Your task to perform on an android device: What is the recent news? Image 0: 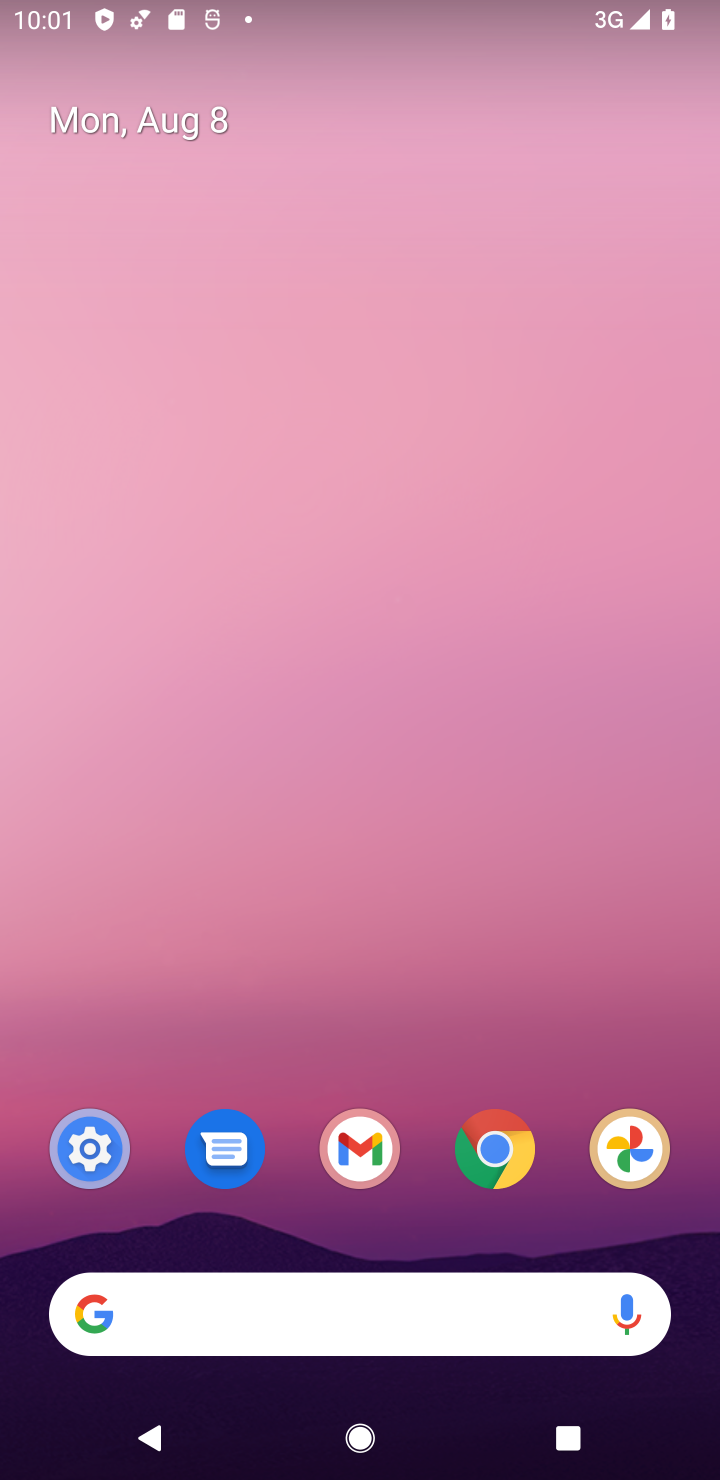
Step 0: drag from (380, 1329) to (366, 423)
Your task to perform on an android device: What is the recent news? Image 1: 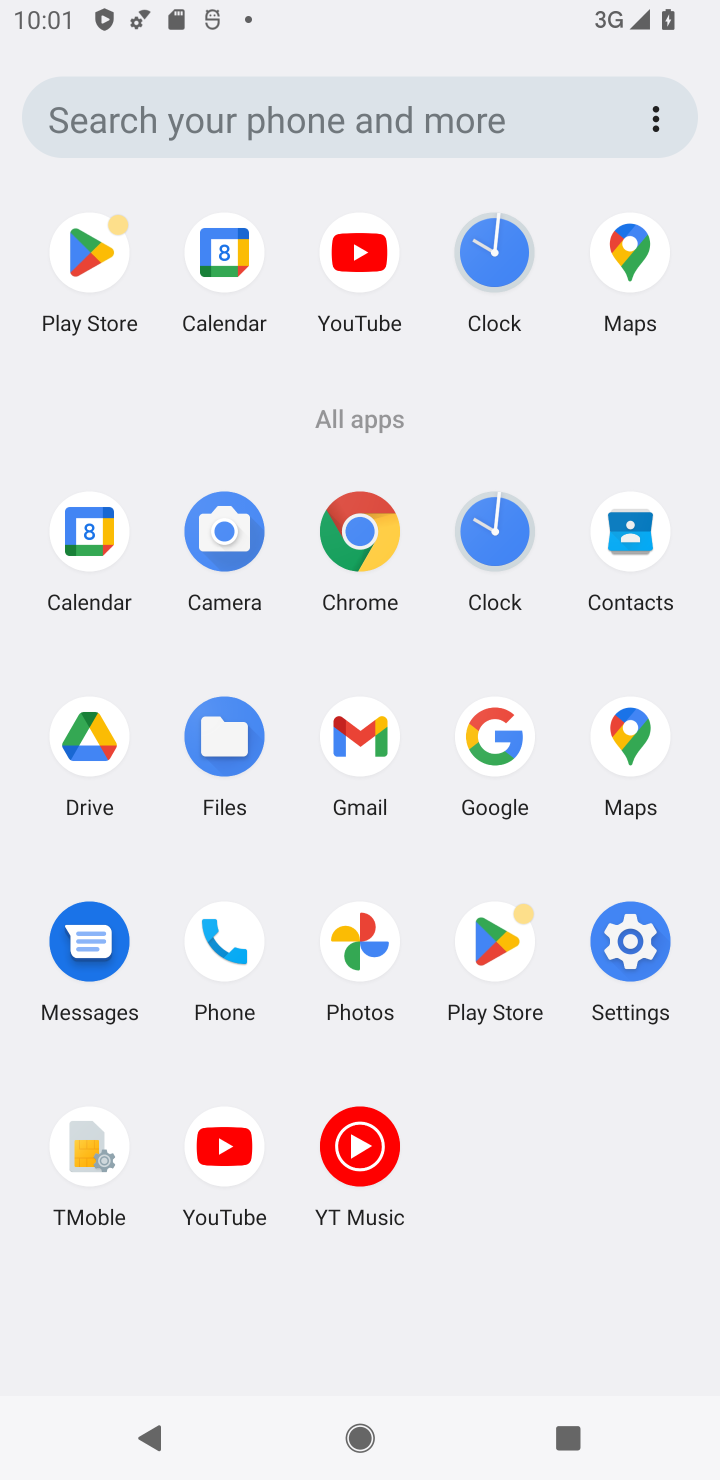
Step 1: click (487, 745)
Your task to perform on an android device: What is the recent news? Image 2: 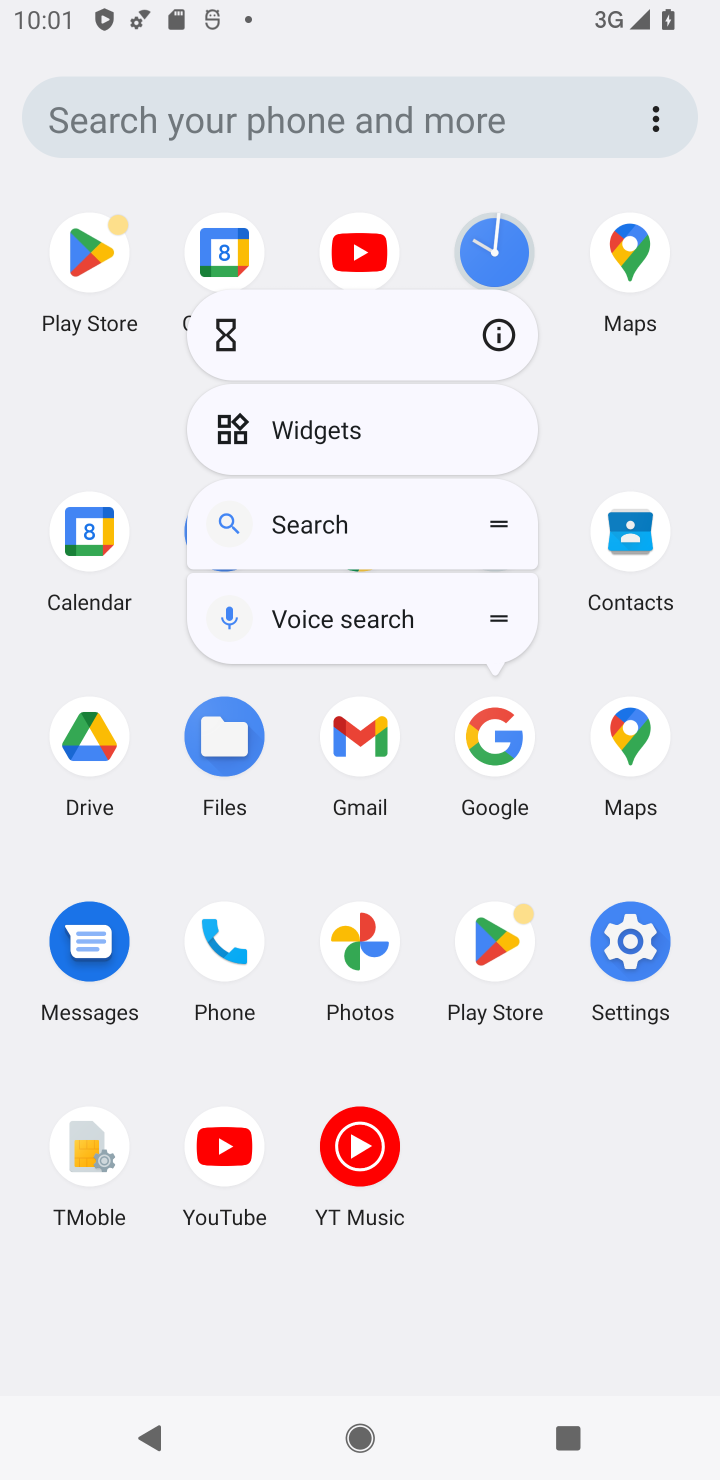
Step 2: click (498, 758)
Your task to perform on an android device: What is the recent news? Image 3: 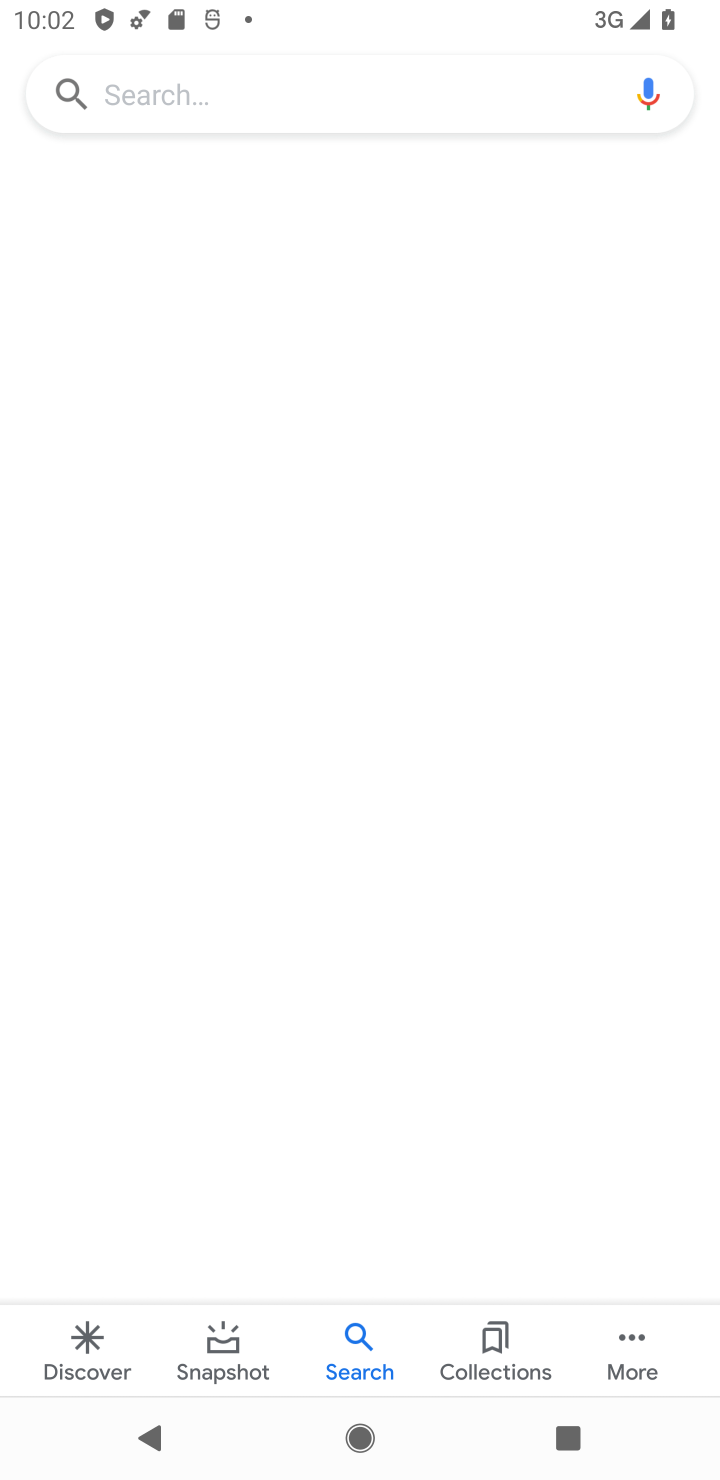
Step 3: click (194, 110)
Your task to perform on an android device: What is the recent news? Image 4: 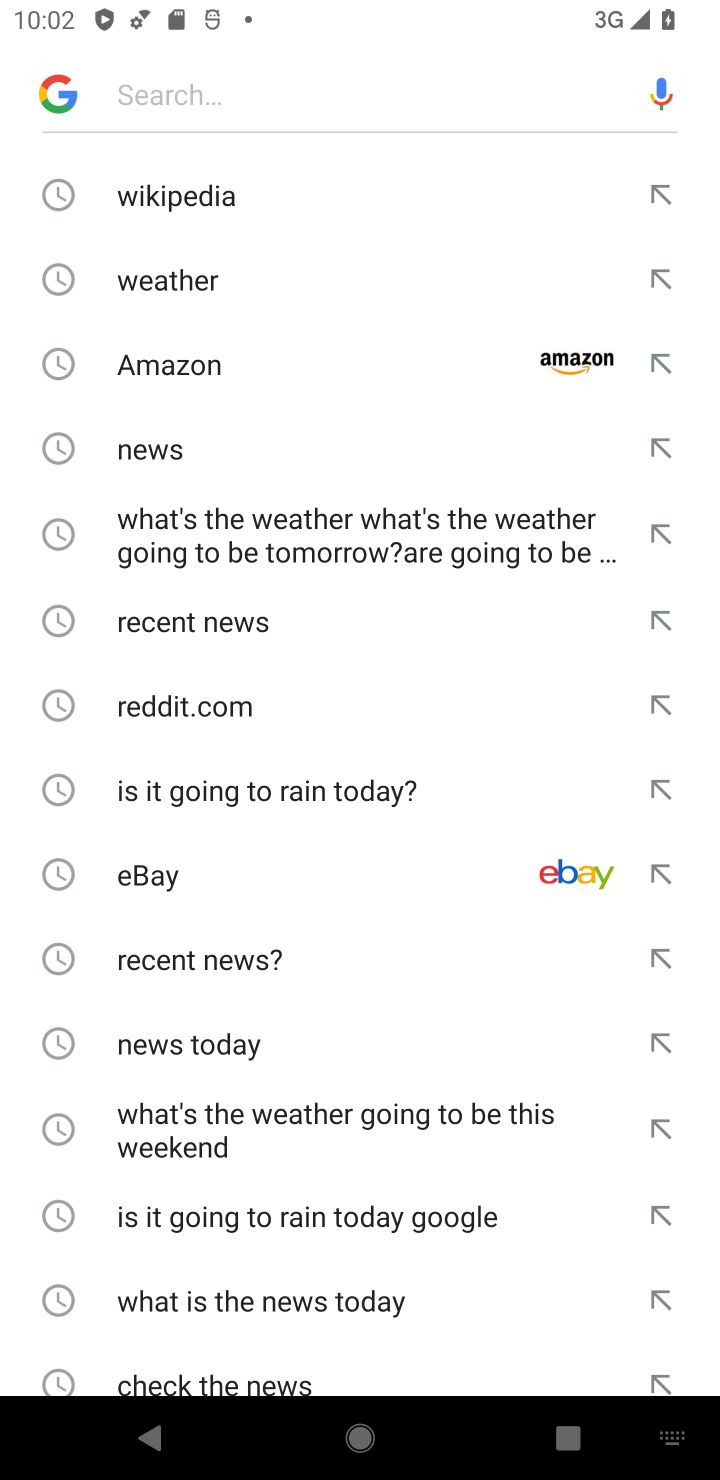
Step 4: click (190, 962)
Your task to perform on an android device: What is the recent news? Image 5: 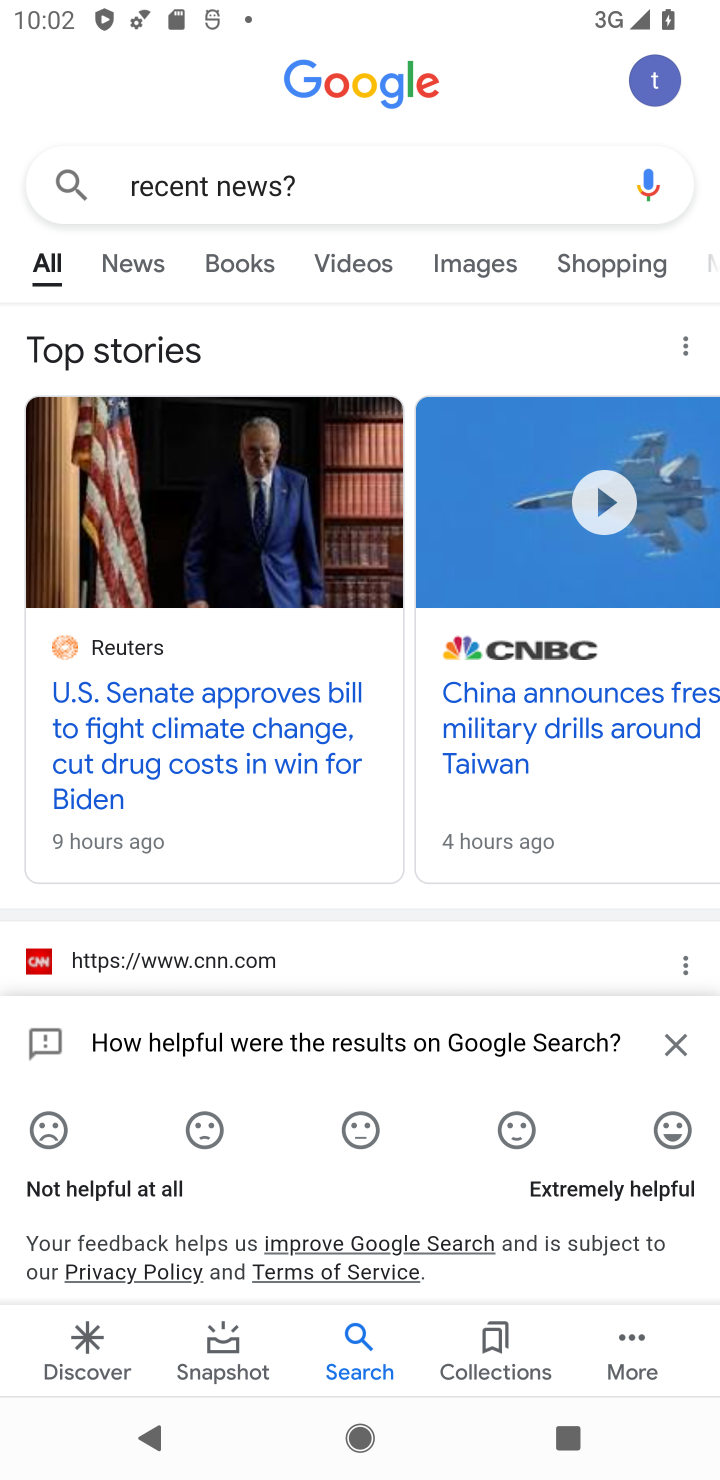
Step 5: task complete